Your task to perform on an android device: move a message to another label in the gmail app Image 0: 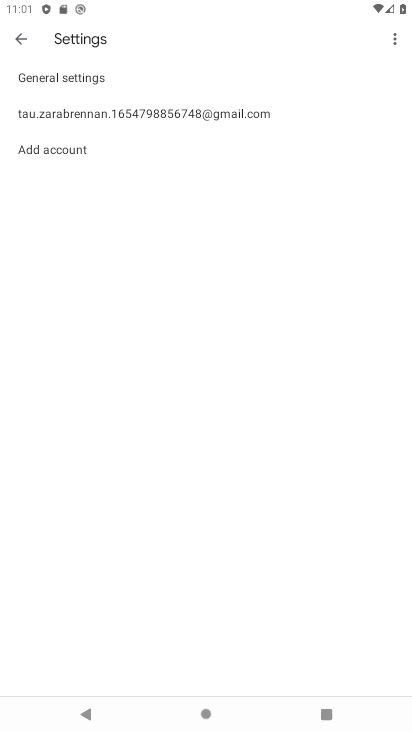
Step 0: click (23, 35)
Your task to perform on an android device: move a message to another label in the gmail app Image 1: 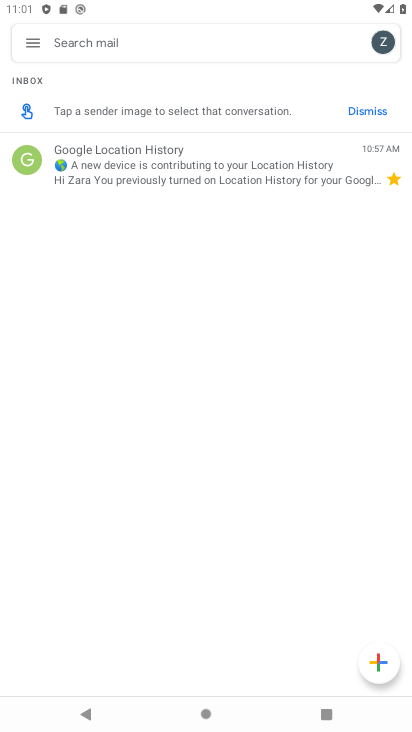
Step 1: click (190, 167)
Your task to perform on an android device: move a message to another label in the gmail app Image 2: 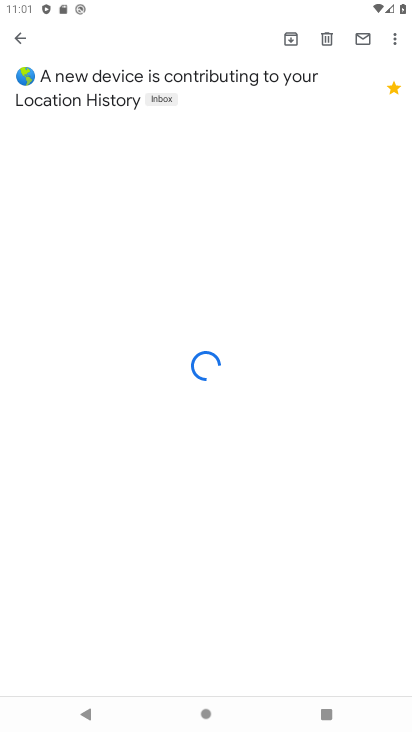
Step 2: click (396, 40)
Your task to perform on an android device: move a message to another label in the gmail app Image 3: 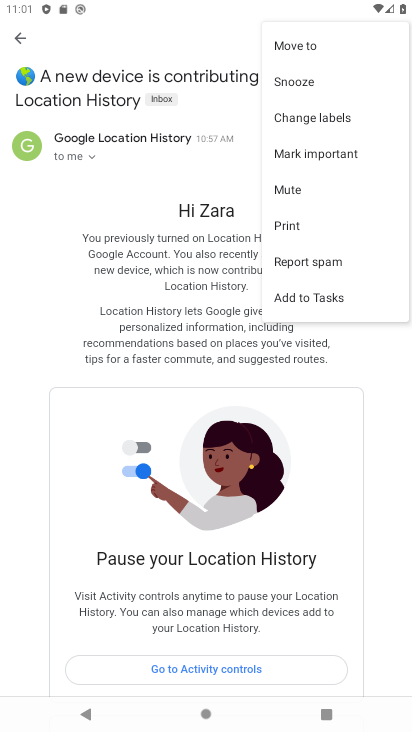
Step 3: click (304, 46)
Your task to perform on an android device: move a message to another label in the gmail app Image 4: 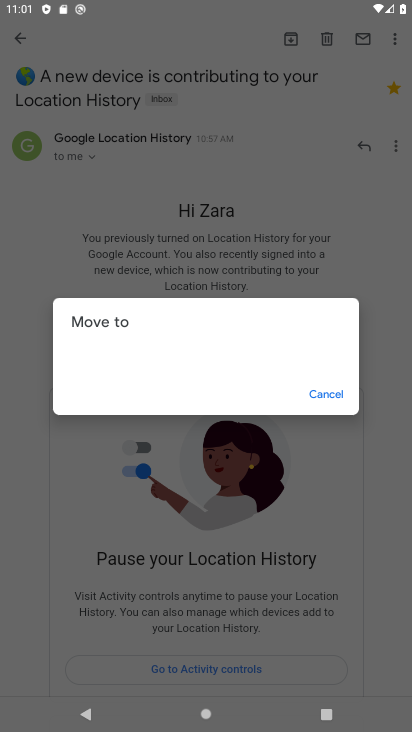
Step 4: click (327, 391)
Your task to perform on an android device: move a message to another label in the gmail app Image 5: 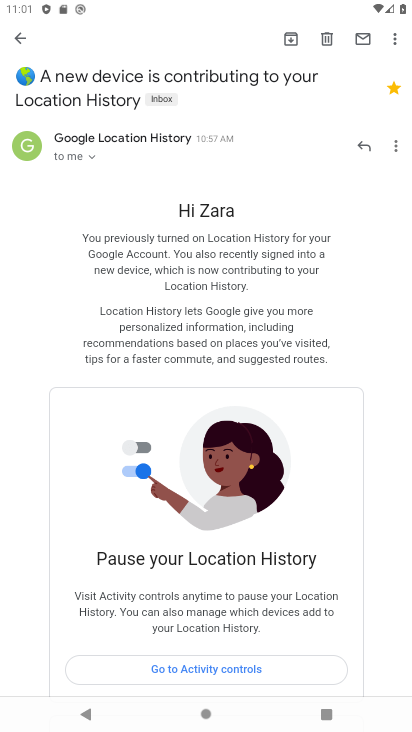
Step 5: task complete